Your task to perform on an android device: change timer sound Image 0: 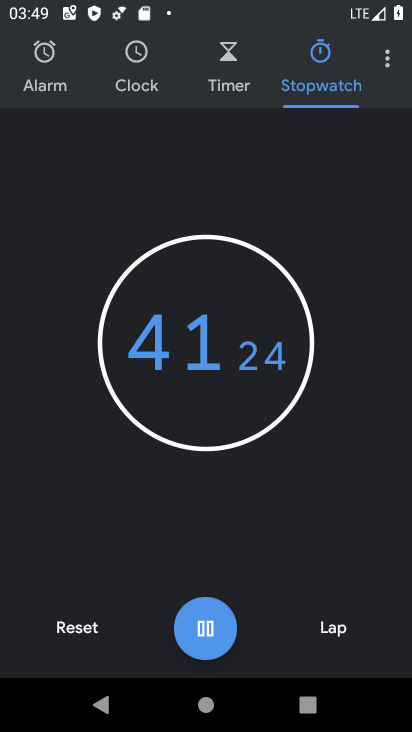
Step 0: click (388, 58)
Your task to perform on an android device: change timer sound Image 1: 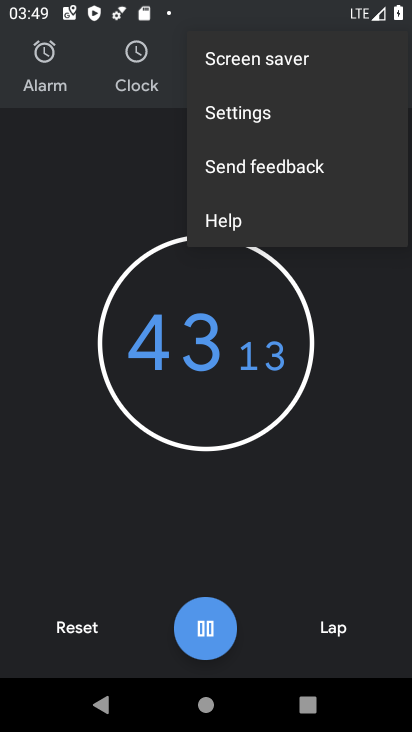
Step 1: click (271, 109)
Your task to perform on an android device: change timer sound Image 2: 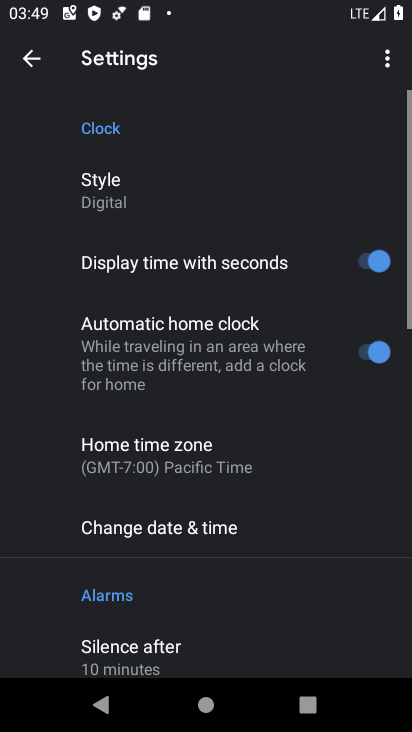
Step 2: drag from (246, 639) to (249, 184)
Your task to perform on an android device: change timer sound Image 3: 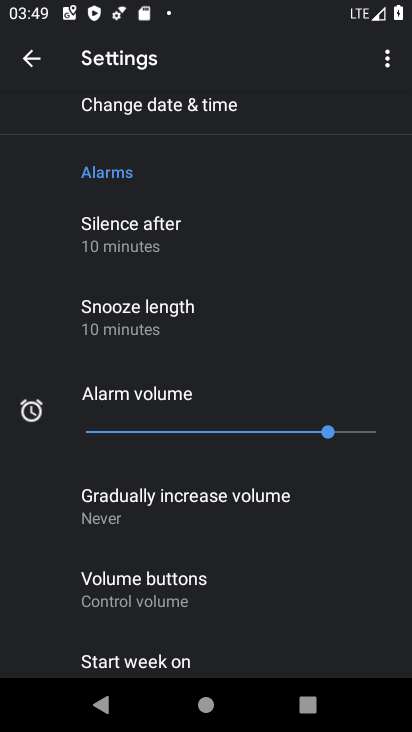
Step 3: drag from (262, 613) to (266, 257)
Your task to perform on an android device: change timer sound Image 4: 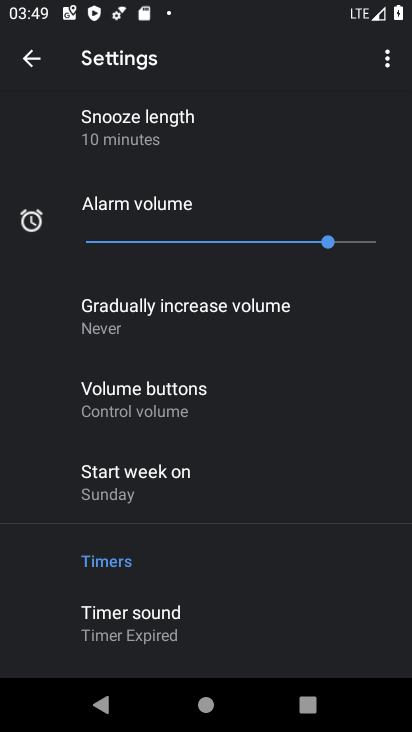
Step 4: drag from (279, 615) to (302, 378)
Your task to perform on an android device: change timer sound Image 5: 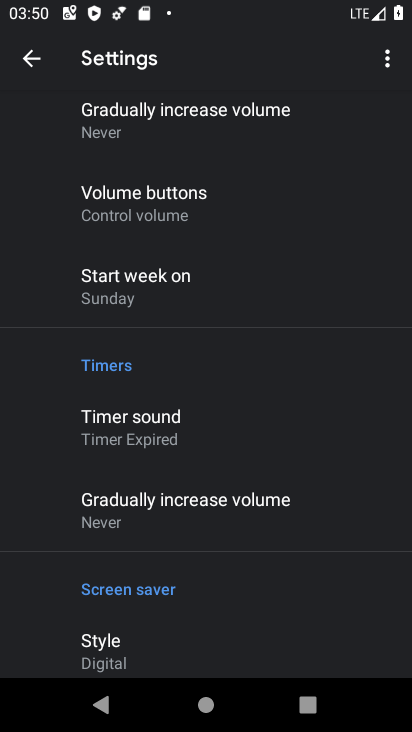
Step 5: click (119, 423)
Your task to perform on an android device: change timer sound Image 6: 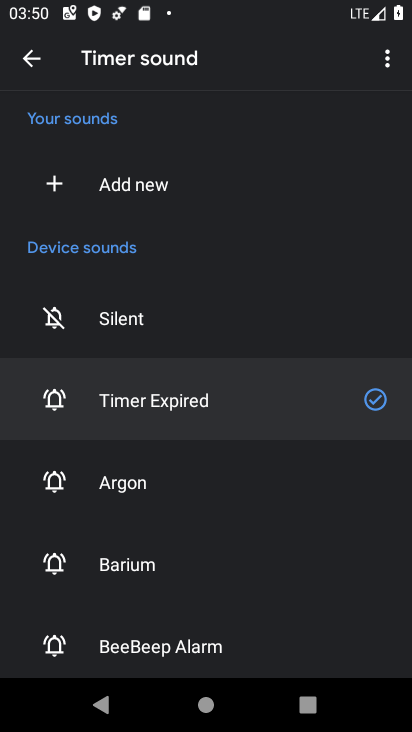
Step 6: click (107, 474)
Your task to perform on an android device: change timer sound Image 7: 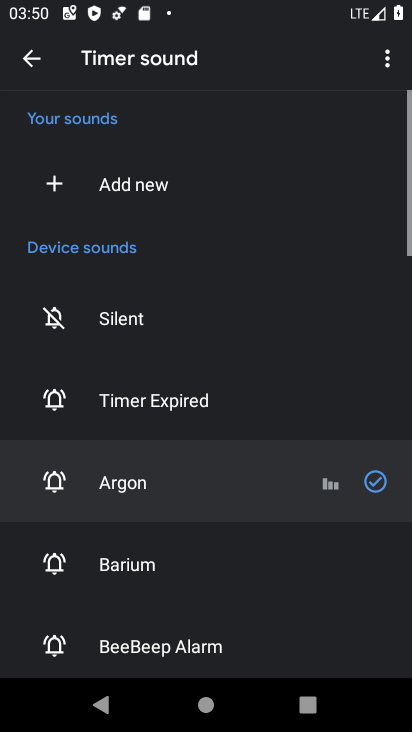
Step 7: task complete